Your task to perform on an android device: open the mobile data screen to see how much data has been used Image 0: 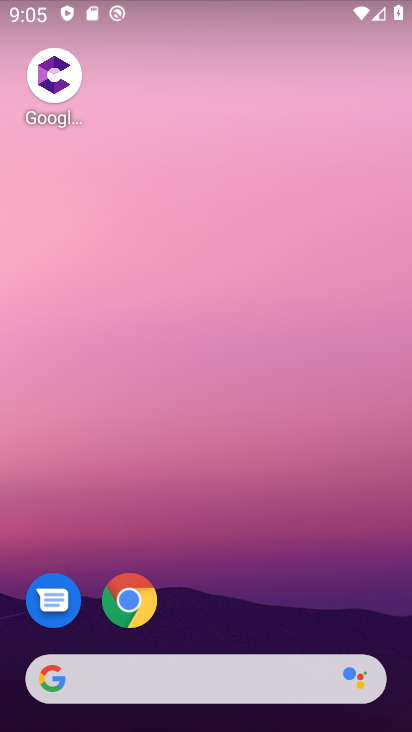
Step 0: drag from (226, 706) to (106, 0)
Your task to perform on an android device: open the mobile data screen to see how much data has been used Image 1: 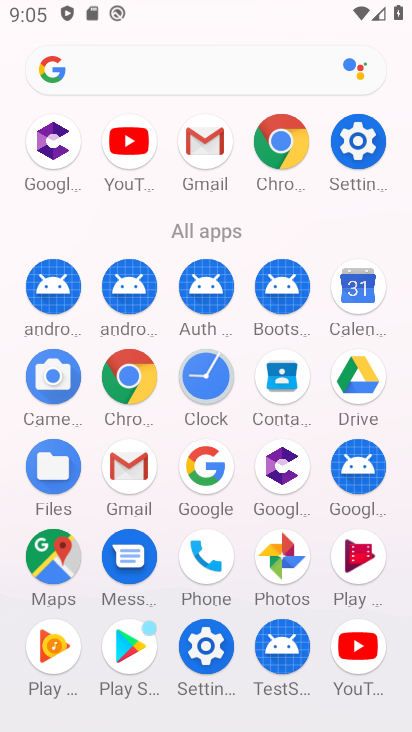
Step 1: click (345, 142)
Your task to perform on an android device: open the mobile data screen to see how much data has been used Image 2: 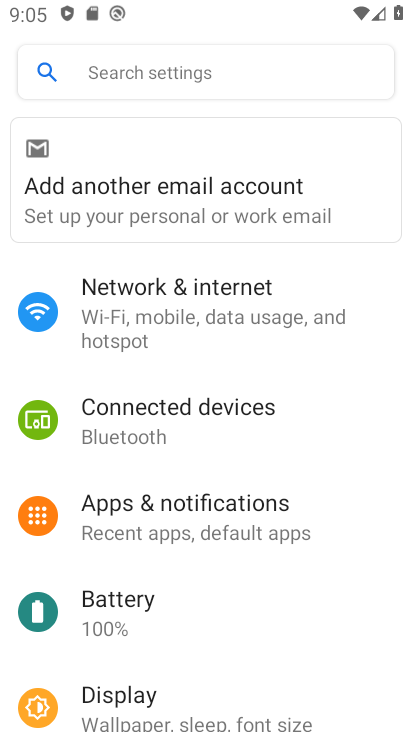
Step 2: click (130, 72)
Your task to perform on an android device: open the mobile data screen to see how much data has been used Image 3: 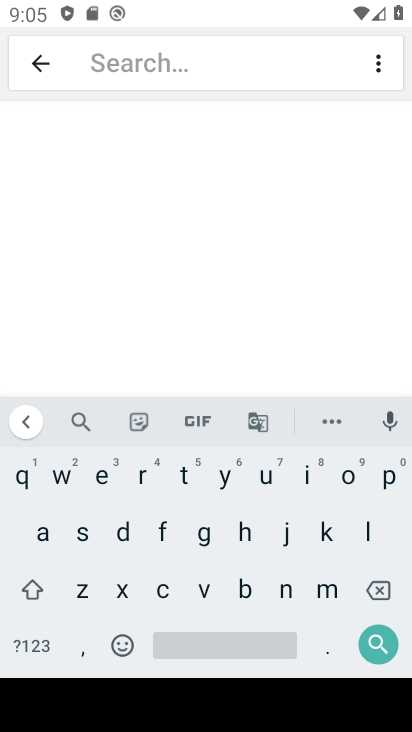
Step 3: click (116, 554)
Your task to perform on an android device: open the mobile data screen to see how much data has been used Image 4: 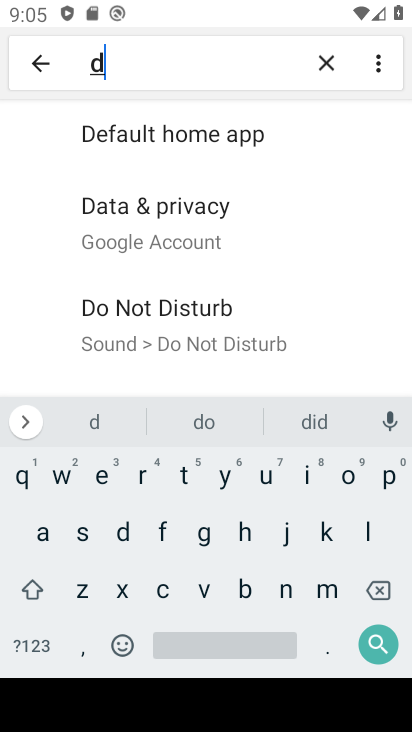
Step 4: click (49, 530)
Your task to perform on an android device: open the mobile data screen to see how much data has been used Image 5: 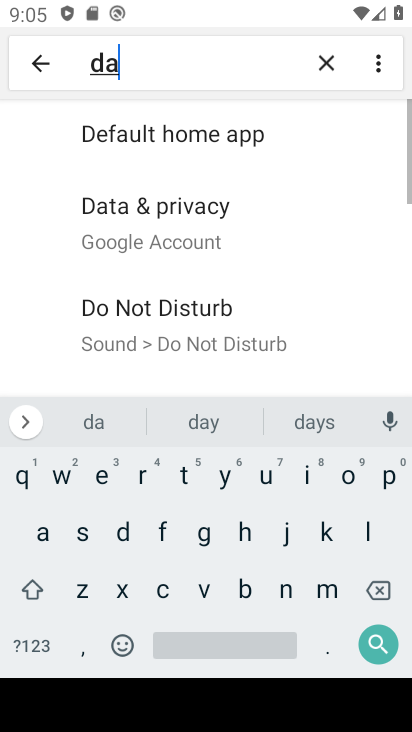
Step 5: click (189, 473)
Your task to perform on an android device: open the mobile data screen to see how much data has been used Image 6: 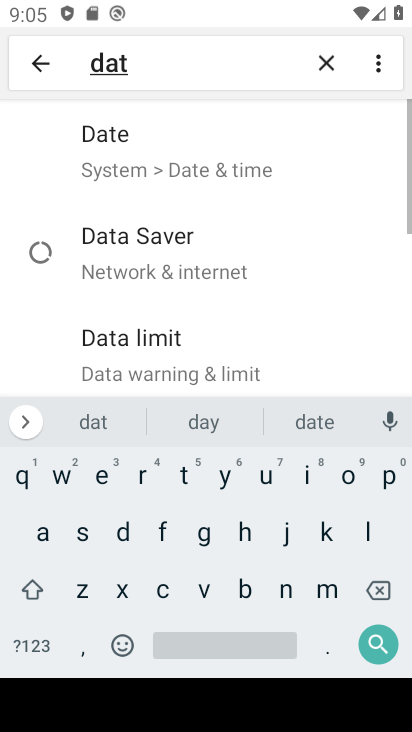
Step 6: click (29, 535)
Your task to perform on an android device: open the mobile data screen to see how much data has been used Image 7: 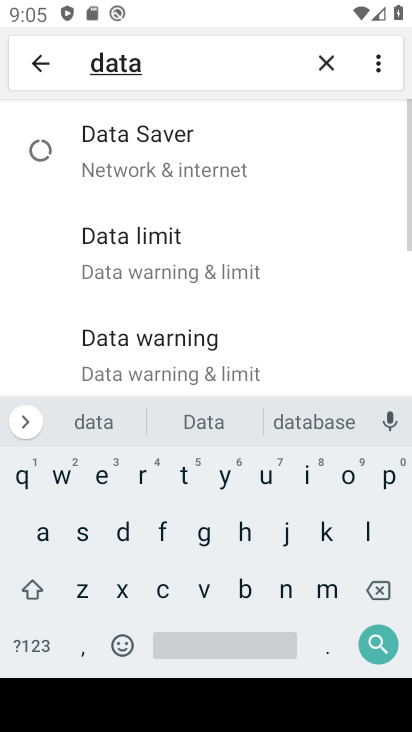
Step 7: click (207, 633)
Your task to perform on an android device: open the mobile data screen to see how much data has been used Image 8: 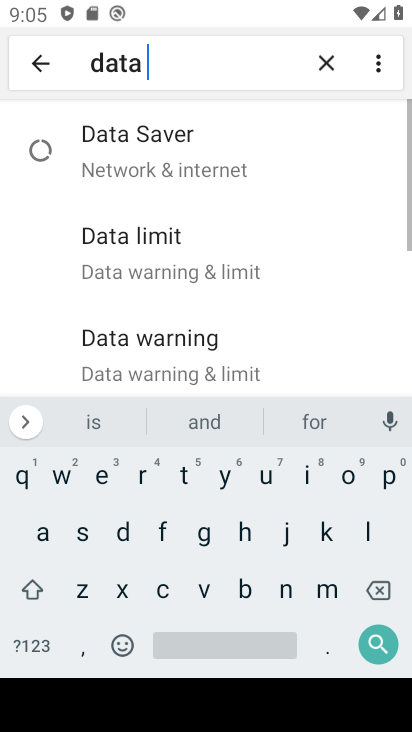
Step 8: click (266, 475)
Your task to perform on an android device: open the mobile data screen to see how much data has been used Image 9: 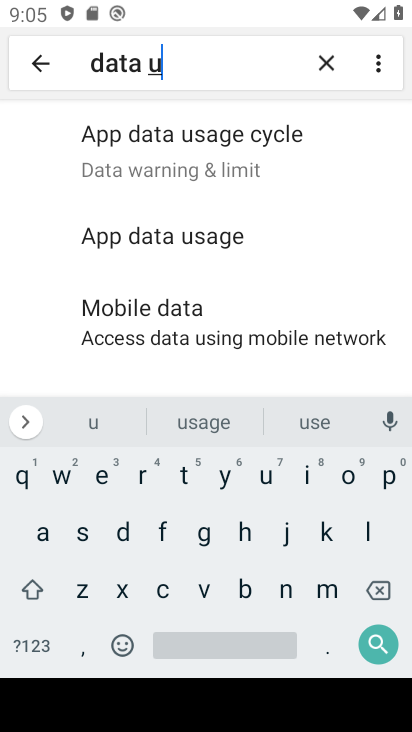
Step 9: click (199, 260)
Your task to perform on an android device: open the mobile data screen to see how much data has been used Image 10: 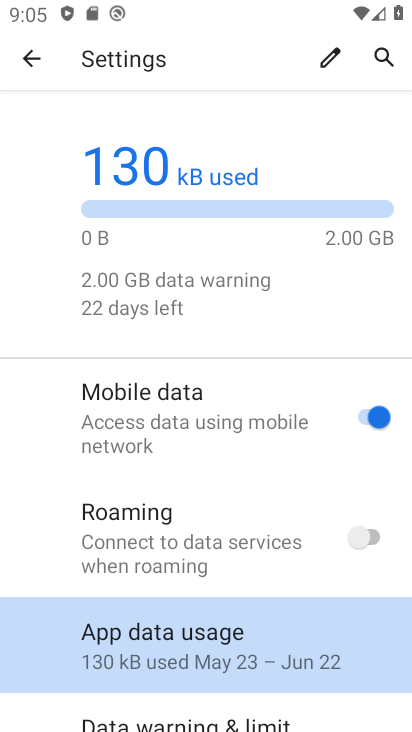
Step 10: click (164, 619)
Your task to perform on an android device: open the mobile data screen to see how much data has been used Image 11: 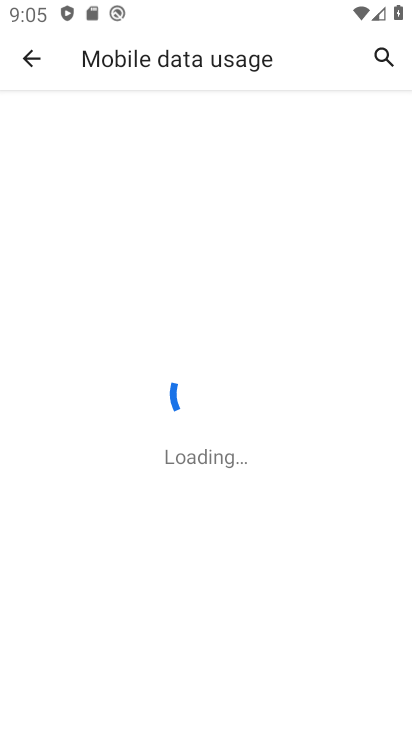
Step 11: task complete